Your task to perform on an android device: turn on the 12-hour format for clock Image 0: 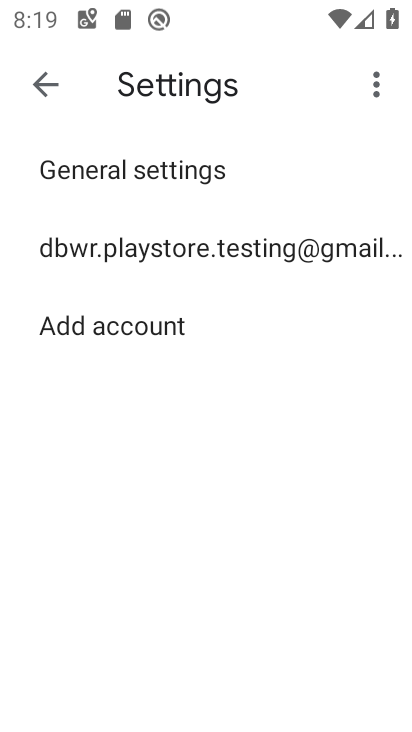
Step 0: press home button
Your task to perform on an android device: turn on the 12-hour format for clock Image 1: 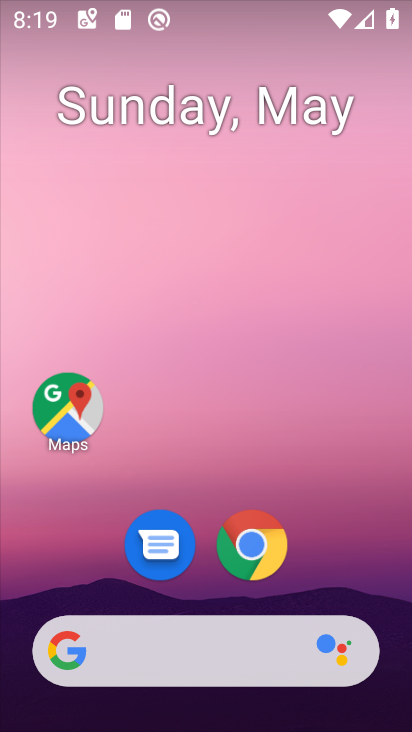
Step 1: drag from (66, 608) to (144, 102)
Your task to perform on an android device: turn on the 12-hour format for clock Image 2: 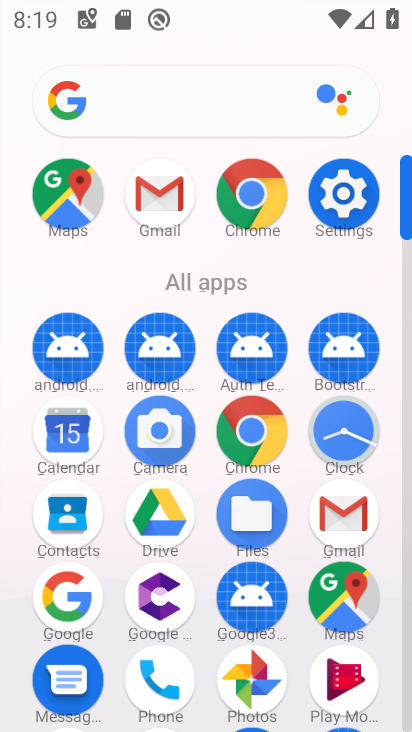
Step 2: click (363, 435)
Your task to perform on an android device: turn on the 12-hour format for clock Image 3: 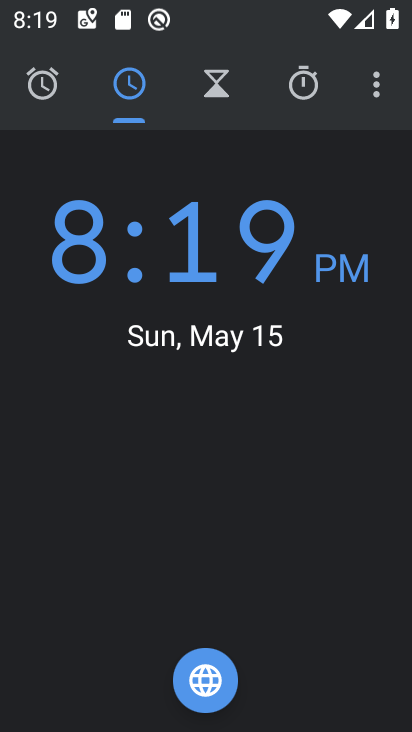
Step 3: click (393, 84)
Your task to perform on an android device: turn on the 12-hour format for clock Image 4: 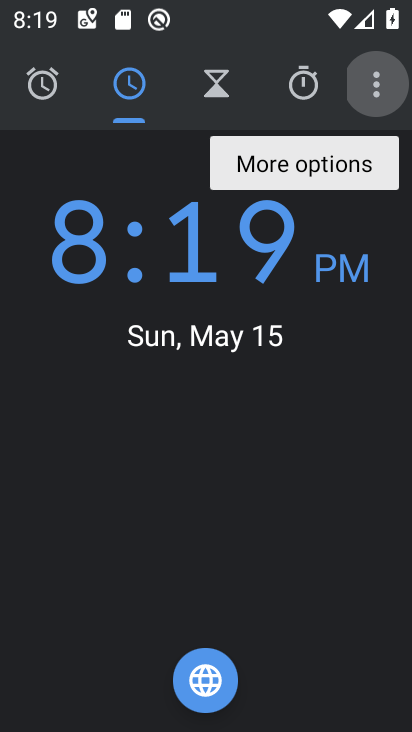
Step 4: click (393, 84)
Your task to perform on an android device: turn on the 12-hour format for clock Image 5: 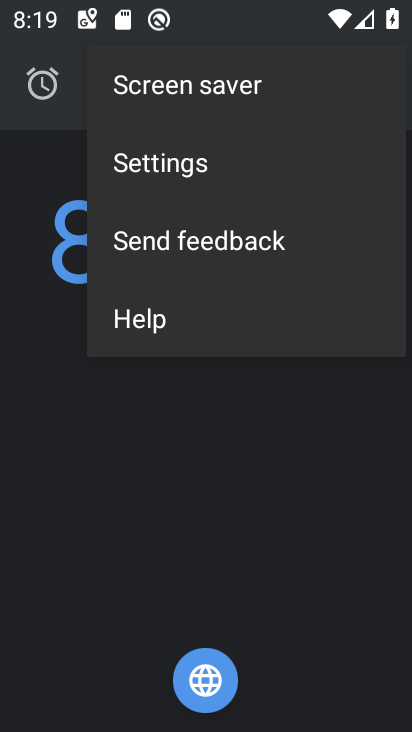
Step 5: click (296, 157)
Your task to perform on an android device: turn on the 12-hour format for clock Image 6: 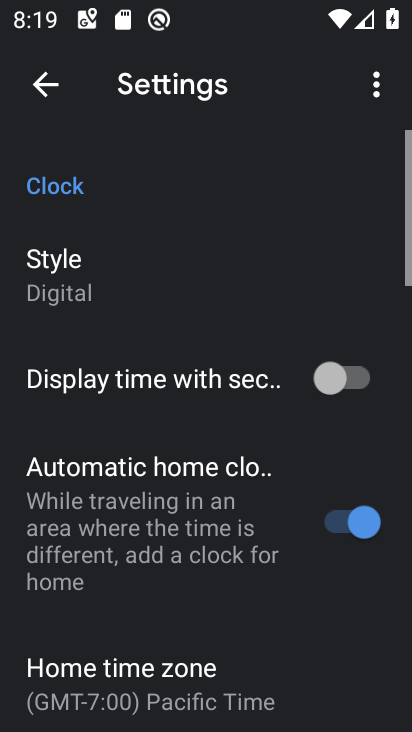
Step 6: drag from (125, 668) to (241, 90)
Your task to perform on an android device: turn on the 12-hour format for clock Image 7: 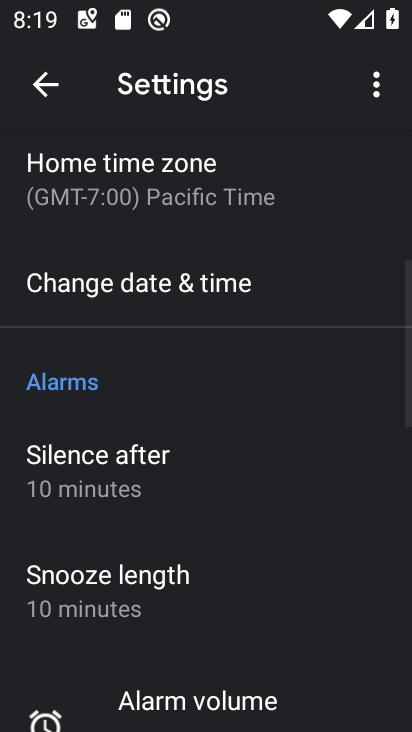
Step 7: click (205, 286)
Your task to perform on an android device: turn on the 12-hour format for clock Image 8: 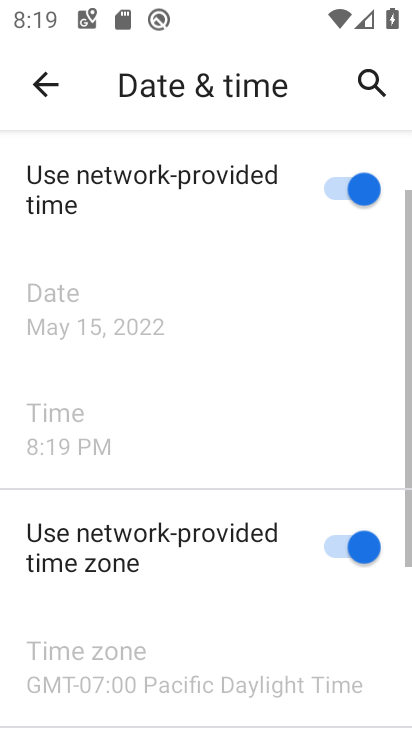
Step 8: task complete